Your task to perform on an android device: Open Chrome and go to settings Image 0: 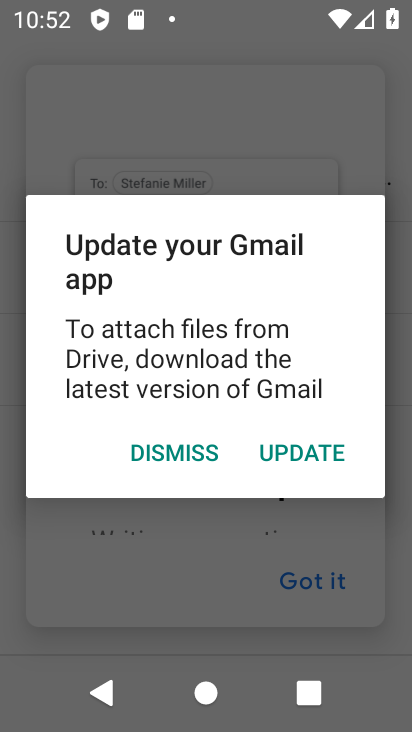
Step 0: press home button
Your task to perform on an android device: Open Chrome and go to settings Image 1: 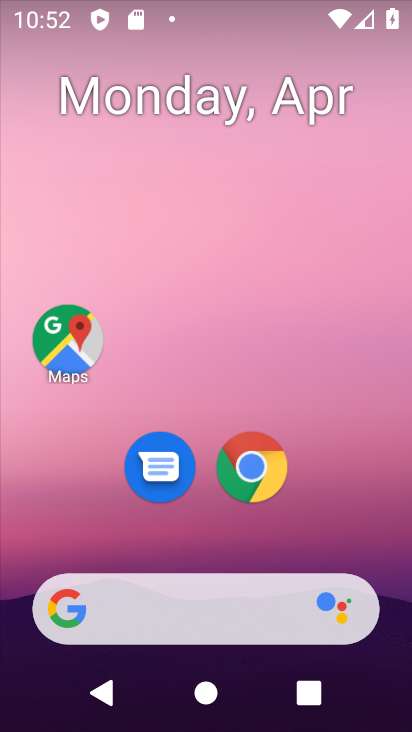
Step 1: click (256, 476)
Your task to perform on an android device: Open Chrome and go to settings Image 2: 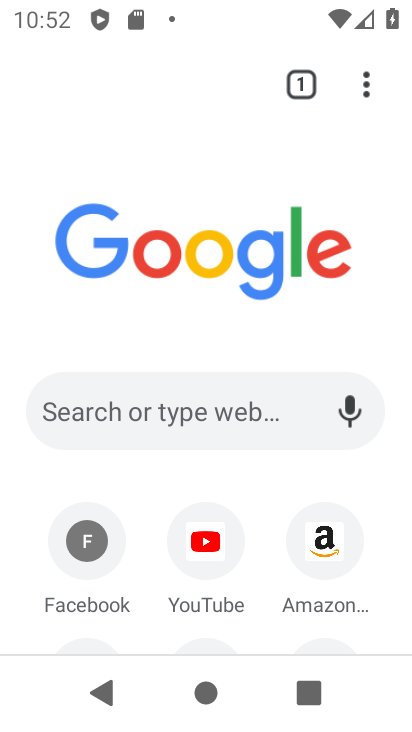
Step 2: click (368, 88)
Your task to perform on an android device: Open Chrome and go to settings Image 3: 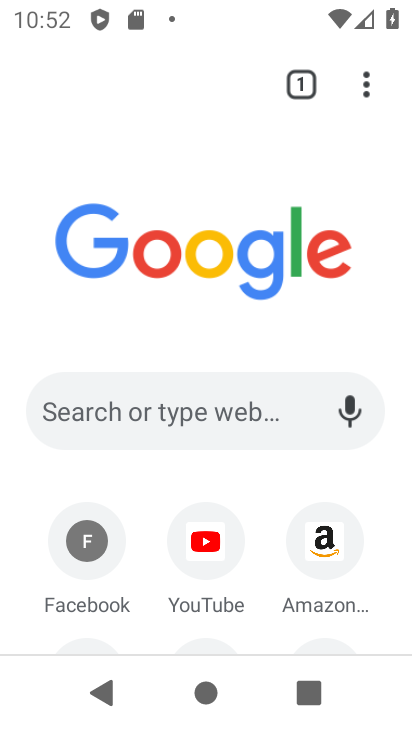
Step 3: task complete